Your task to perform on an android device: When is my next appointment? Image 0: 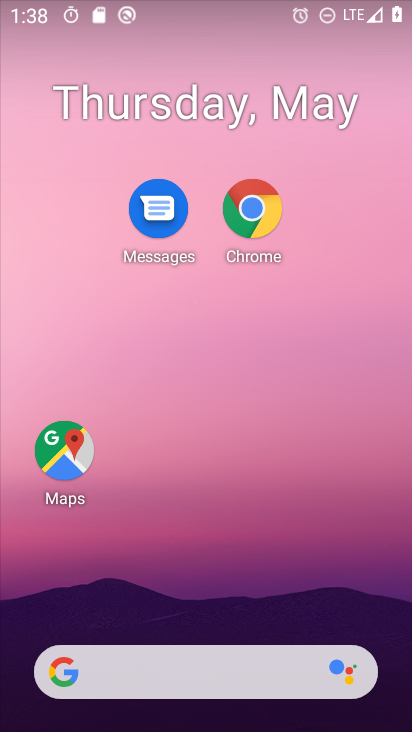
Step 0: drag from (267, 616) to (230, 92)
Your task to perform on an android device: When is my next appointment? Image 1: 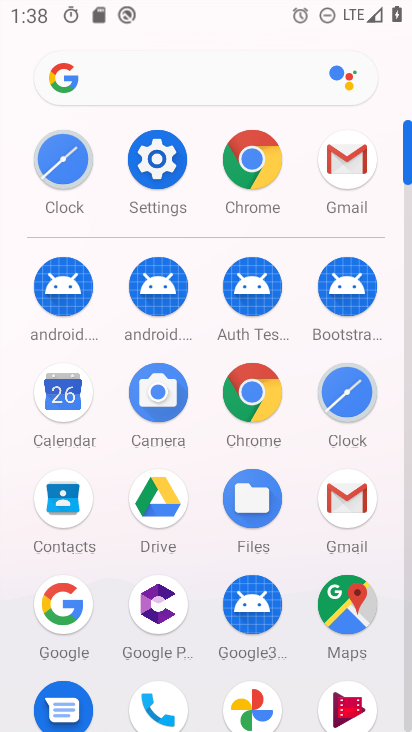
Step 1: click (57, 409)
Your task to perform on an android device: When is my next appointment? Image 2: 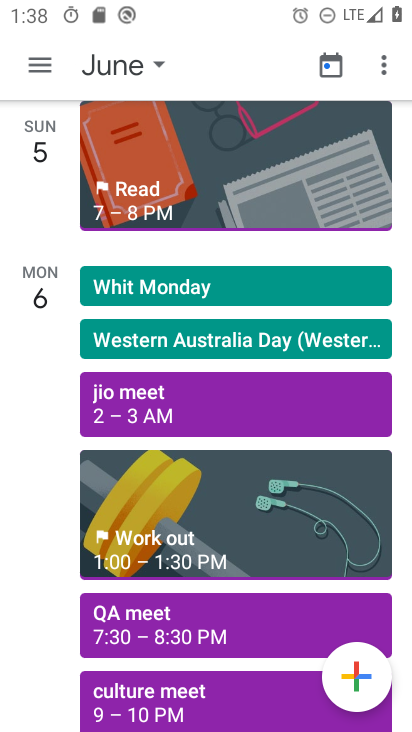
Step 2: task complete